Your task to perform on an android device: turn notification dots on Image 0: 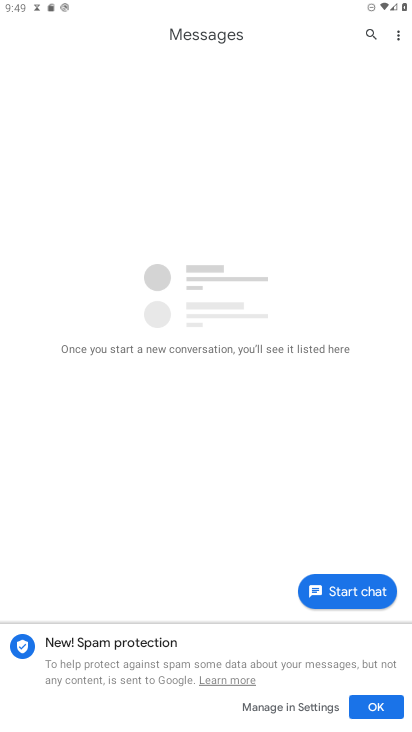
Step 0: press home button
Your task to perform on an android device: turn notification dots on Image 1: 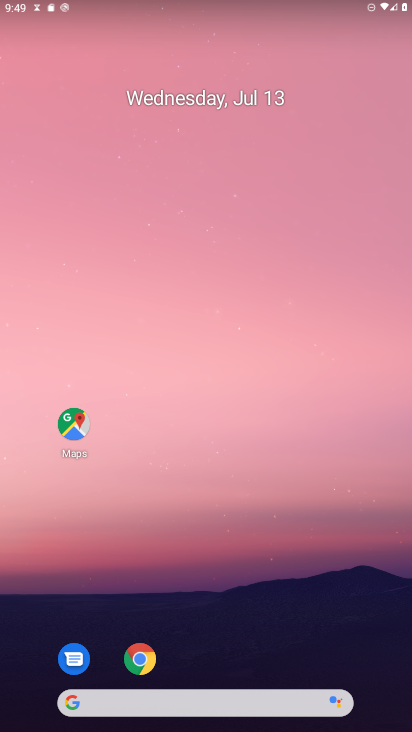
Step 1: drag from (208, 689) to (191, 345)
Your task to perform on an android device: turn notification dots on Image 2: 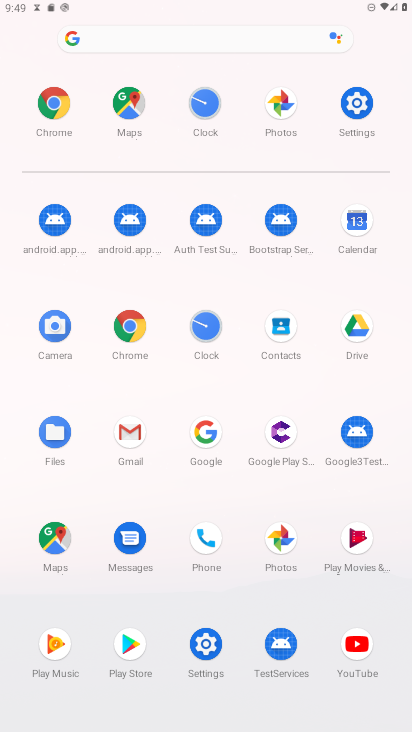
Step 2: click (346, 110)
Your task to perform on an android device: turn notification dots on Image 3: 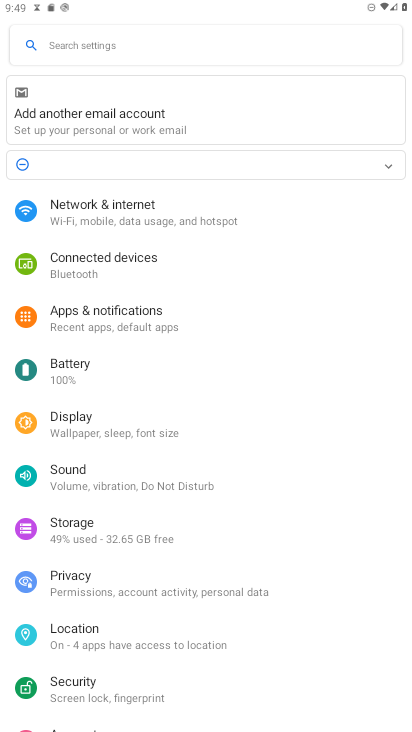
Step 3: click (173, 326)
Your task to perform on an android device: turn notification dots on Image 4: 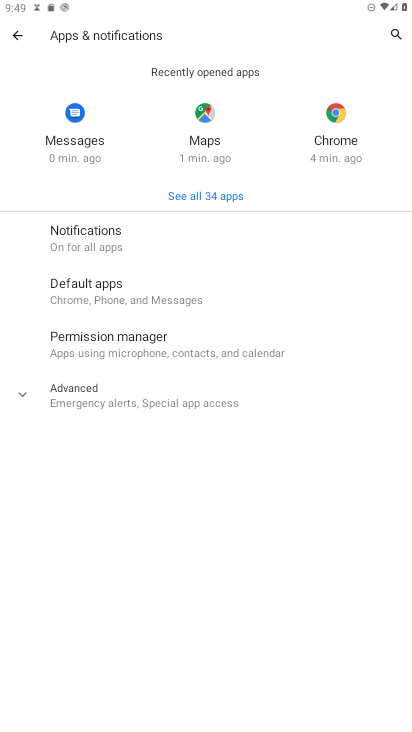
Step 4: click (171, 235)
Your task to perform on an android device: turn notification dots on Image 5: 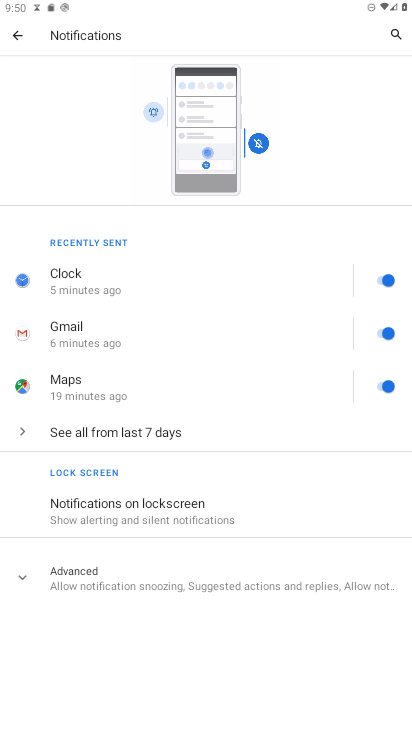
Step 5: click (150, 572)
Your task to perform on an android device: turn notification dots on Image 6: 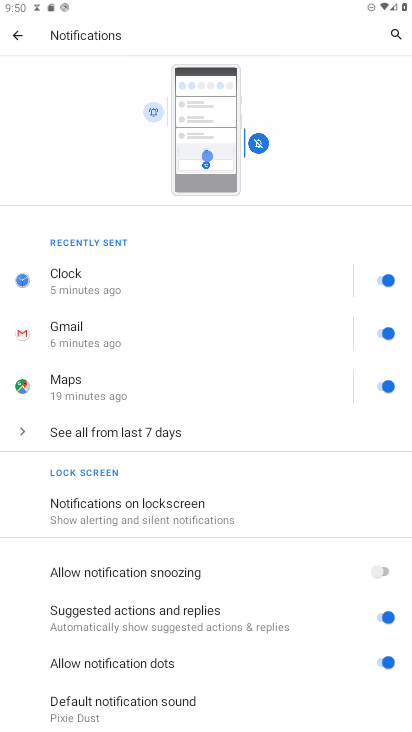
Step 6: task complete